Your task to perform on an android device: Go to Reddit.com Image 0: 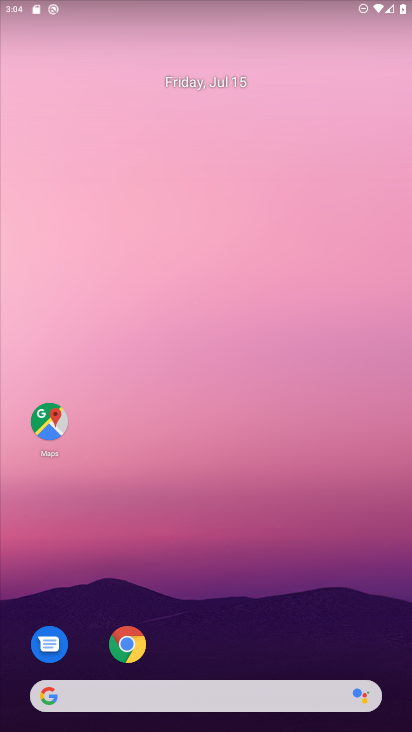
Step 0: click (215, 684)
Your task to perform on an android device: Go to Reddit.com Image 1: 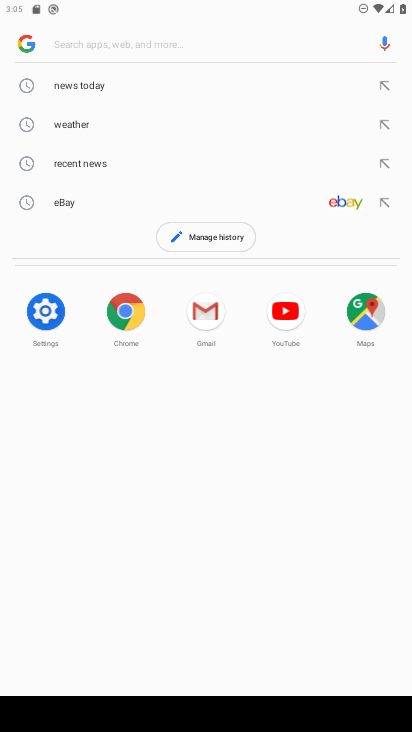
Step 1: type "Reddit.com"
Your task to perform on an android device: Go to Reddit.com Image 2: 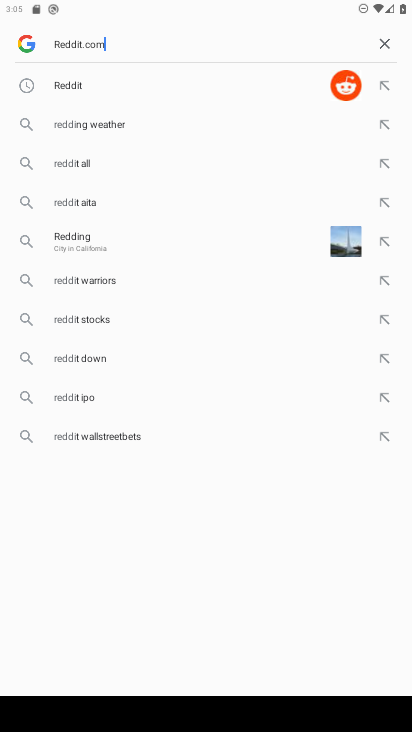
Step 2: type ""
Your task to perform on an android device: Go to Reddit.com Image 3: 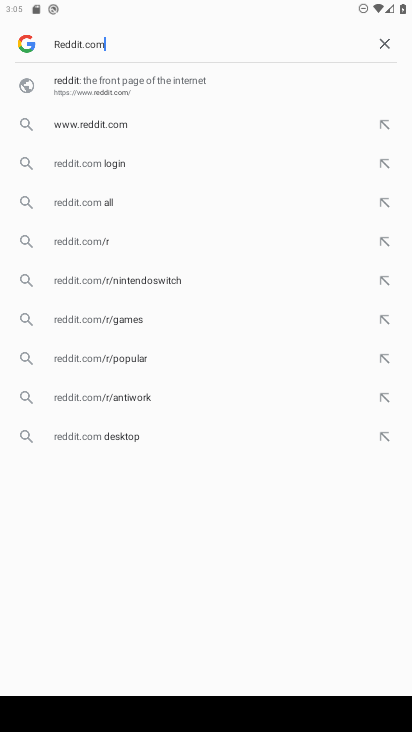
Step 3: click (108, 96)
Your task to perform on an android device: Go to Reddit.com Image 4: 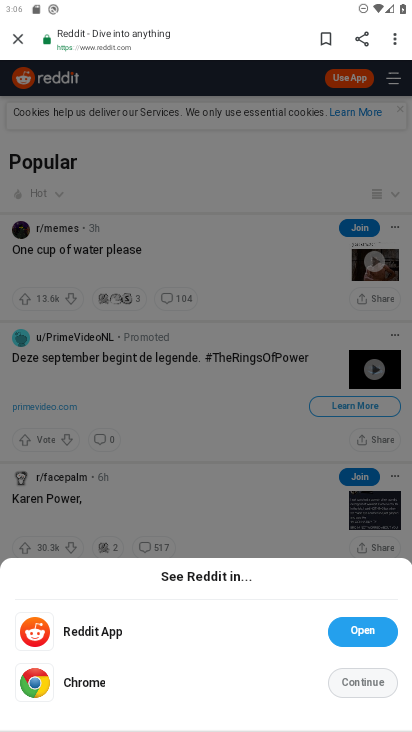
Step 4: task complete